Your task to perform on an android device: toggle location history Image 0: 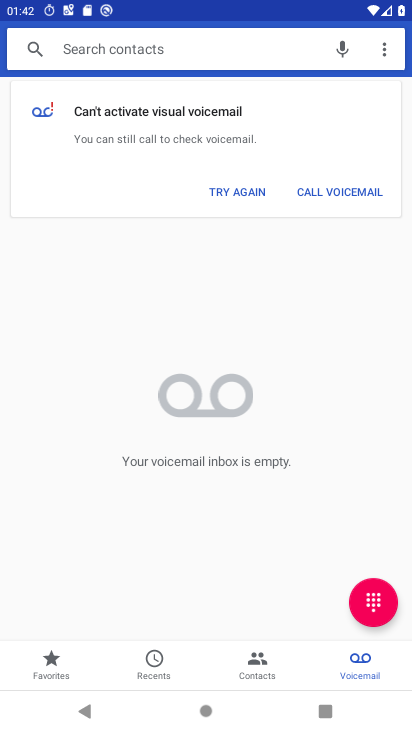
Step 0: press home button
Your task to perform on an android device: toggle location history Image 1: 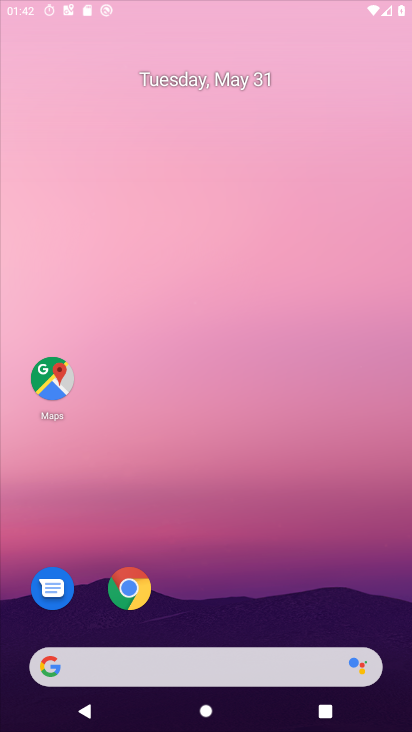
Step 1: drag from (191, 626) to (238, 67)
Your task to perform on an android device: toggle location history Image 2: 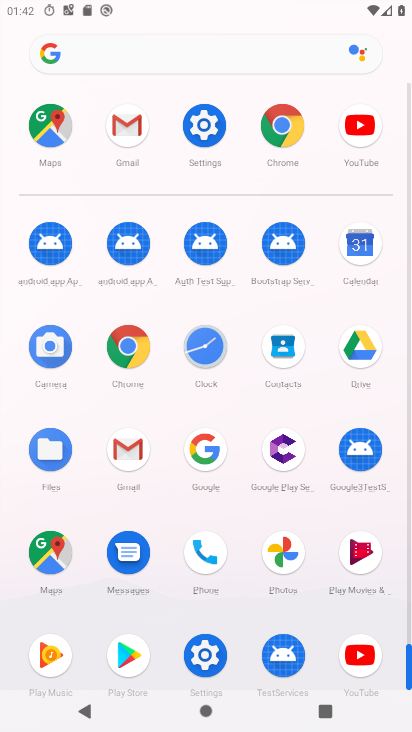
Step 2: click (198, 125)
Your task to perform on an android device: toggle location history Image 3: 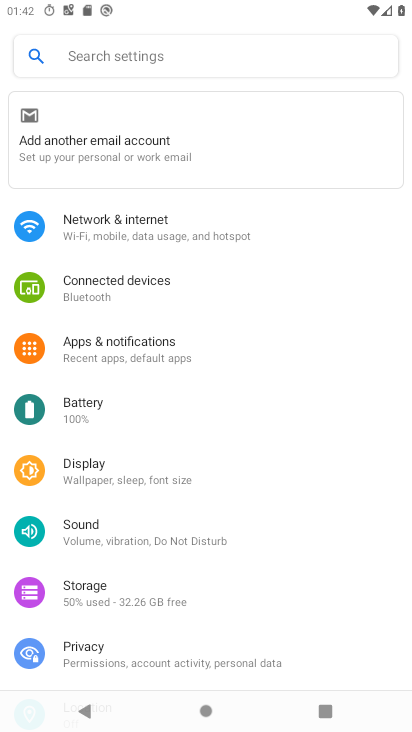
Step 3: drag from (154, 665) to (162, 337)
Your task to perform on an android device: toggle location history Image 4: 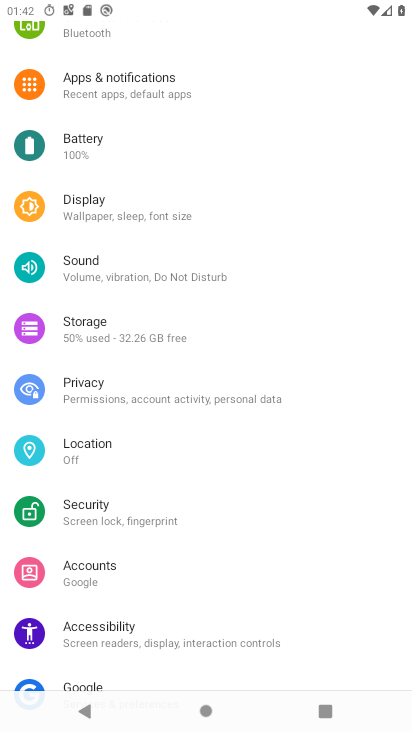
Step 4: click (94, 445)
Your task to perform on an android device: toggle location history Image 5: 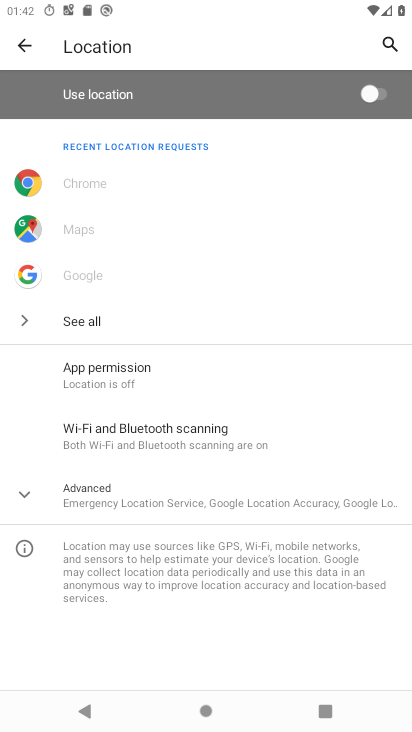
Step 5: click (204, 497)
Your task to perform on an android device: toggle location history Image 6: 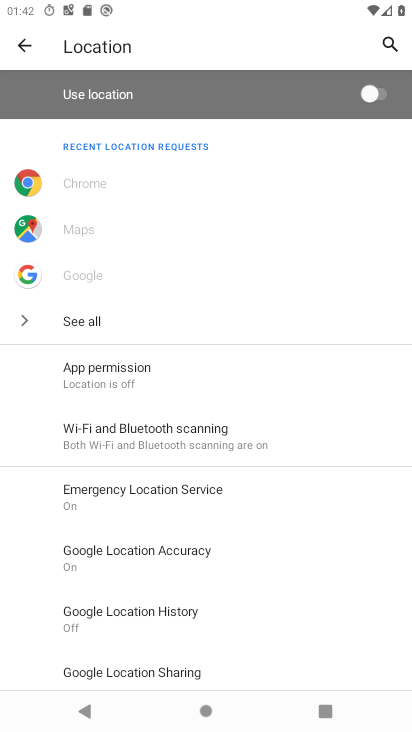
Step 6: click (150, 628)
Your task to perform on an android device: toggle location history Image 7: 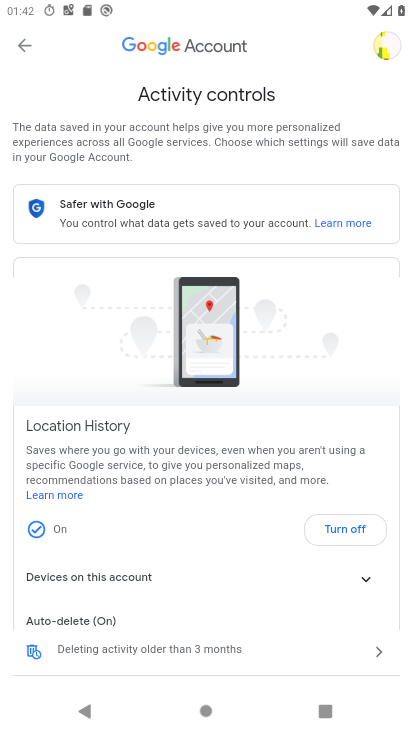
Step 7: click (330, 520)
Your task to perform on an android device: toggle location history Image 8: 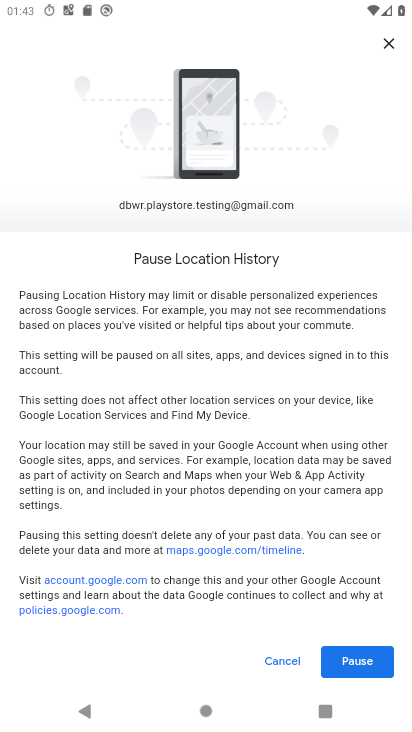
Step 8: click (350, 649)
Your task to perform on an android device: toggle location history Image 9: 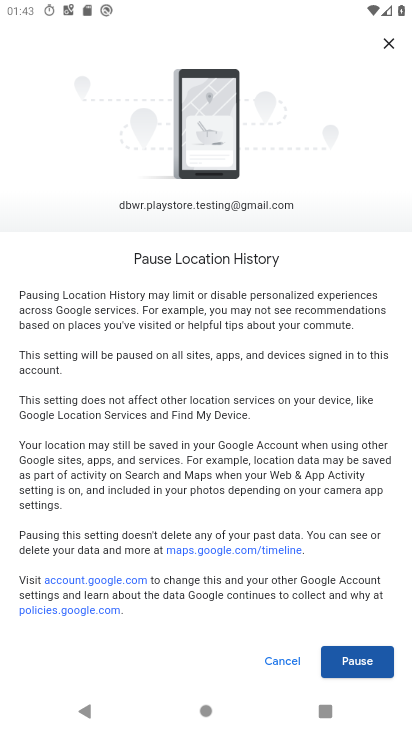
Step 9: click (361, 673)
Your task to perform on an android device: toggle location history Image 10: 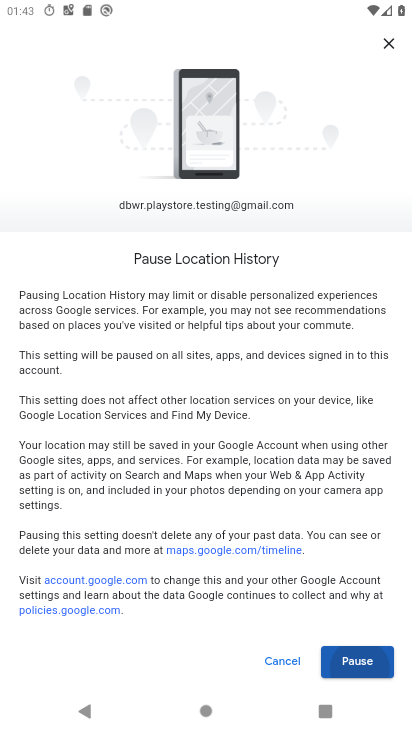
Step 10: click (366, 671)
Your task to perform on an android device: toggle location history Image 11: 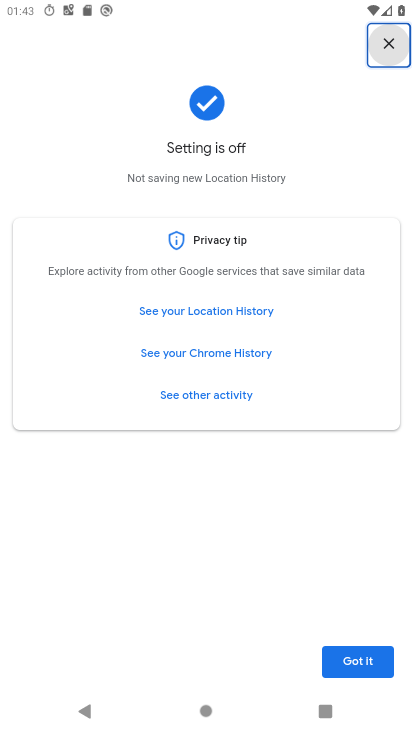
Step 11: task complete